Your task to perform on an android device: delete the emails in spam in the gmail app Image 0: 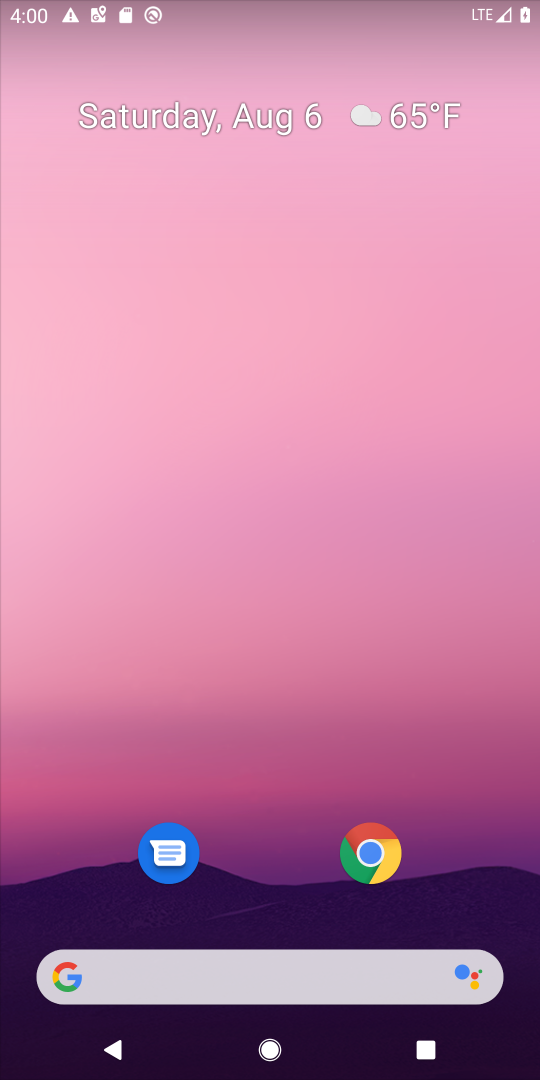
Step 0: drag from (242, 783) to (314, 23)
Your task to perform on an android device: delete the emails in spam in the gmail app Image 1: 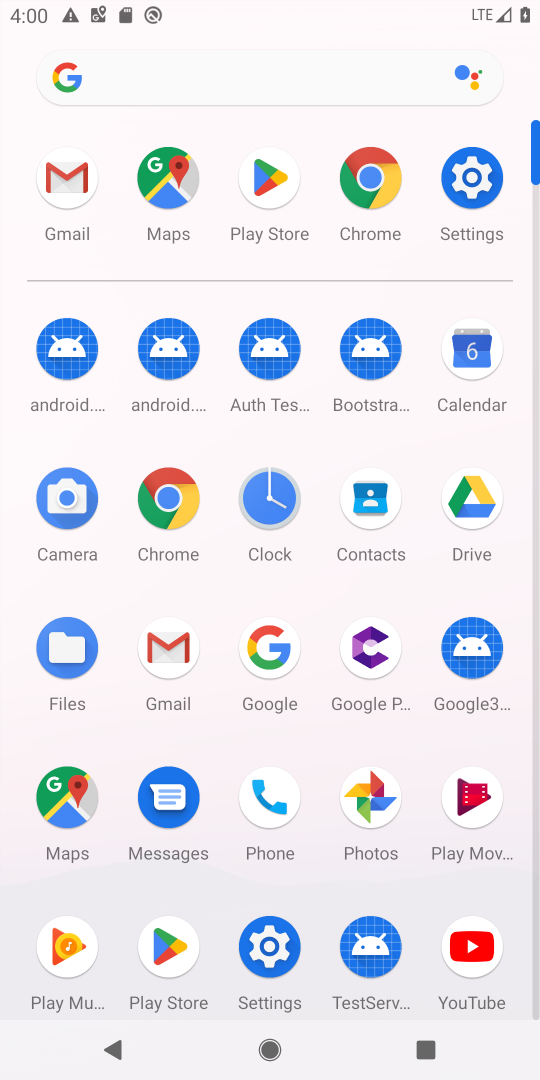
Step 1: click (63, 167)
Your task to perform on an android device: delete the emails in spam in the gmail app Image 2: 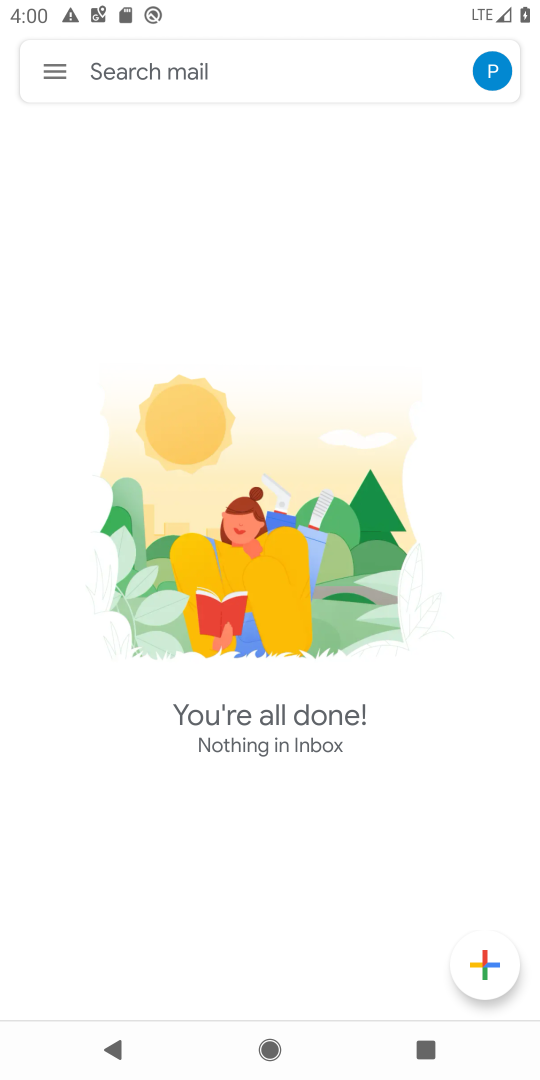
Step 2: click (40, 64)
Your task to perform on an android device: delete the emails in spam in the gmail app Image 3: 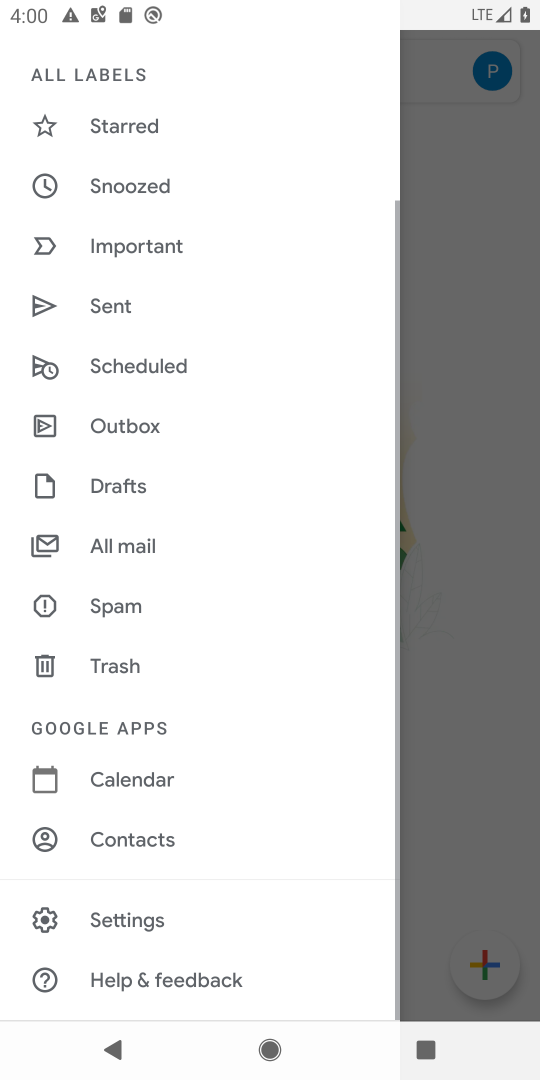
Step 3: click (202, 606)
Your task to perform on an android device: delete the emails in spam in the gmail app Image 4: 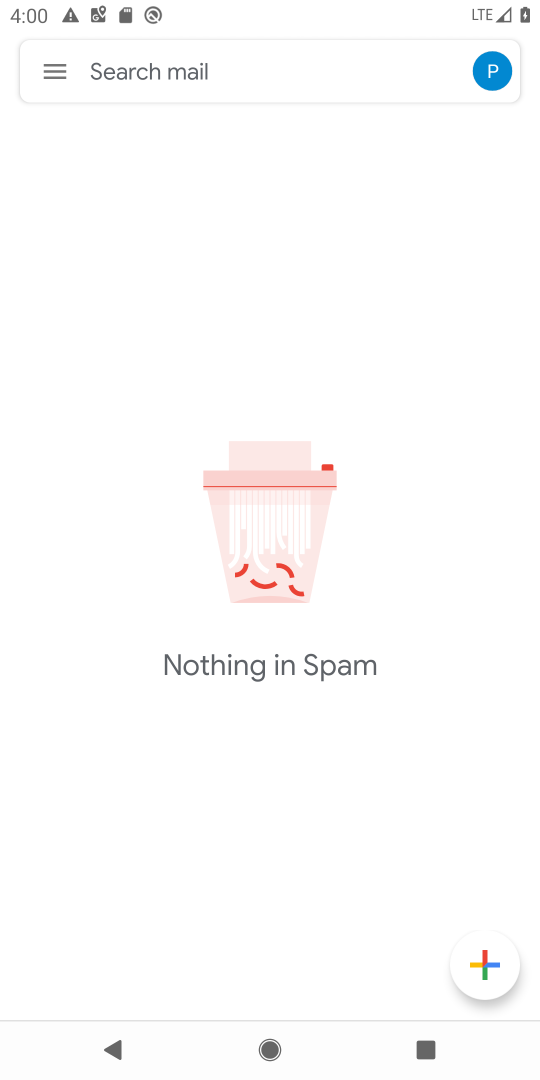
Step 4: task complete